Your task to perform on an android device: Open Chrome and go to the settings page Image 0: 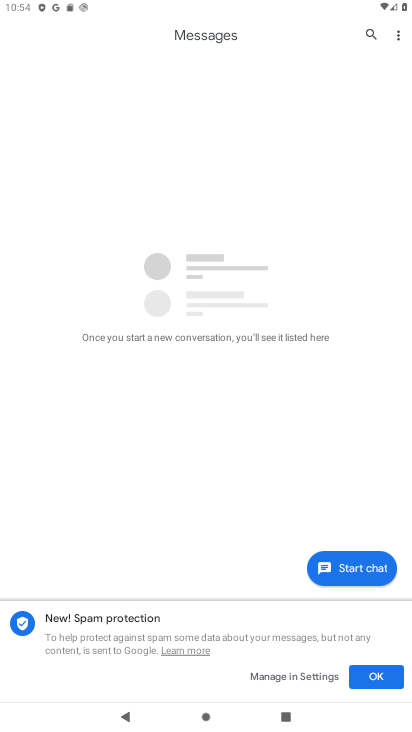
Step 0: press home button
Your task to perform on an android device: Open Chrome and go to the settings page Image 1: 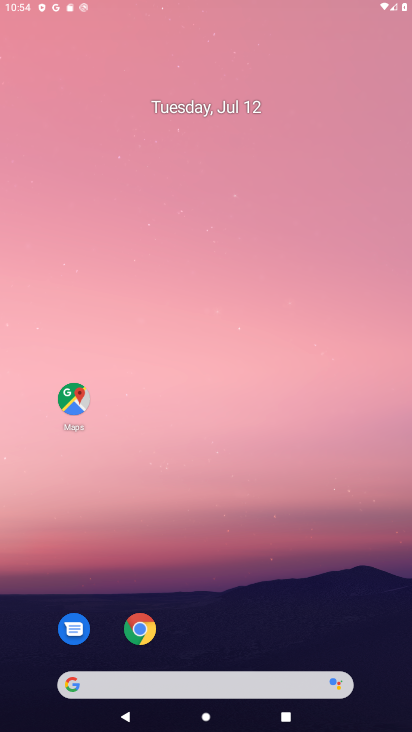
Step 1: drag from (197, 638) to (216, 143)
Your task to perform on an android device: Open Chrome and go to the settings page Image 2: 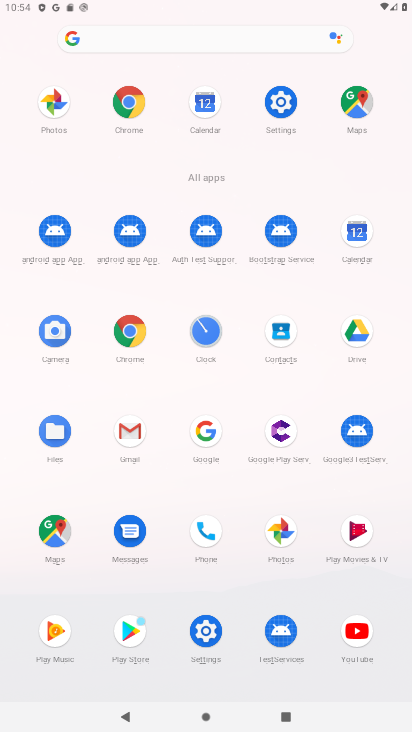
Step 2: click (277, 96)
Your task to perform on an android device: Open Chrome and go to the settings page Image 3: 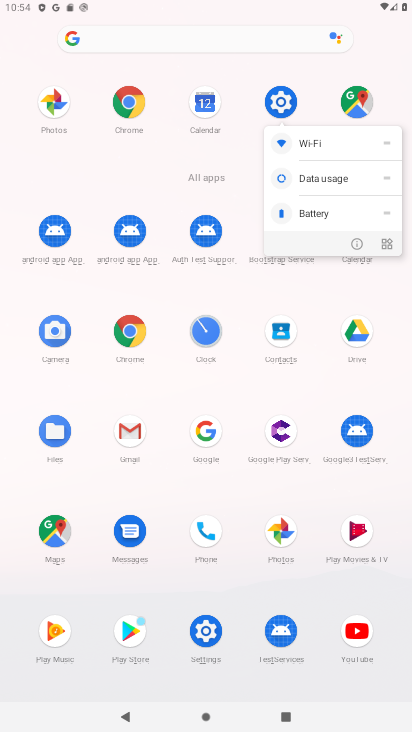
Step 3: click (130, 98)
Your task to perform on an android device: Open Chrome and go to the settings page Image 4: 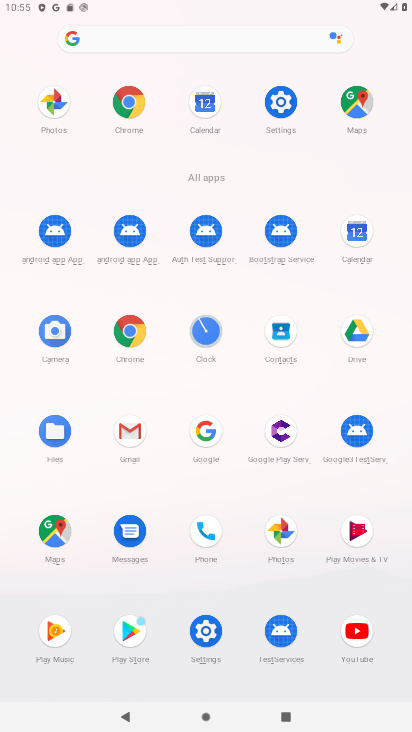
Step 4: click (136, 97)
Your task to perform on an android device: Open Chrome and go to the settings page Image 5: 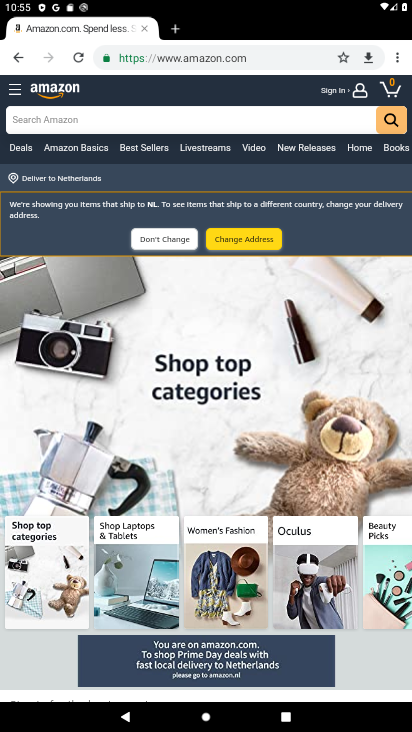
Step 5: click (395, 58)
Your task to perform on an android device: Open Chrome and go to the settings page Image 6: 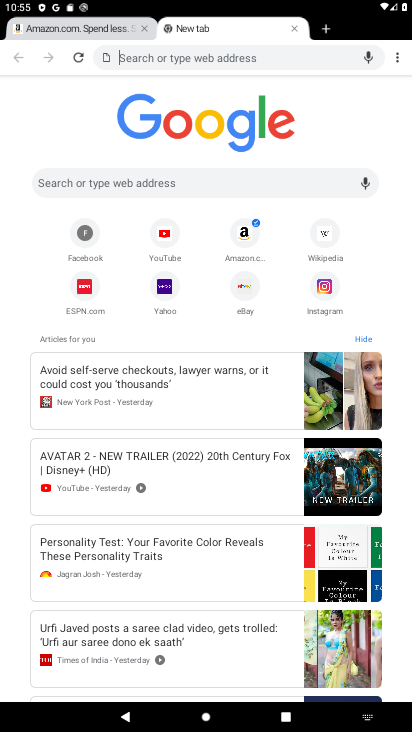
Step 6: click (394, 55)
Your task to perform on an android device: Open Chrome and go to the settings page Image 7: 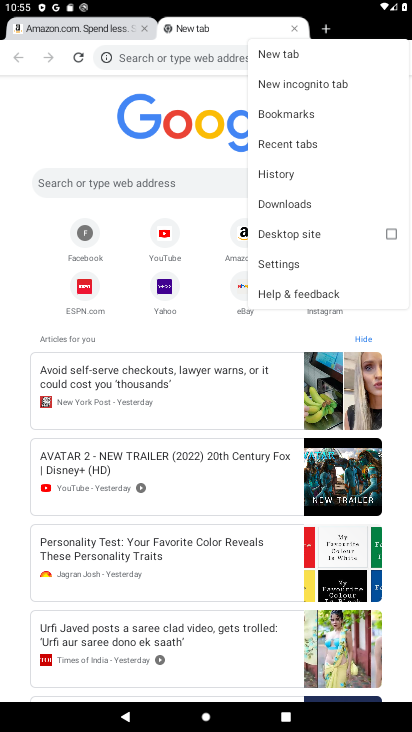
Step 7: click (295, 265)
Your task to perform on an android device: Open Chrome and go to the settings page Image 8: 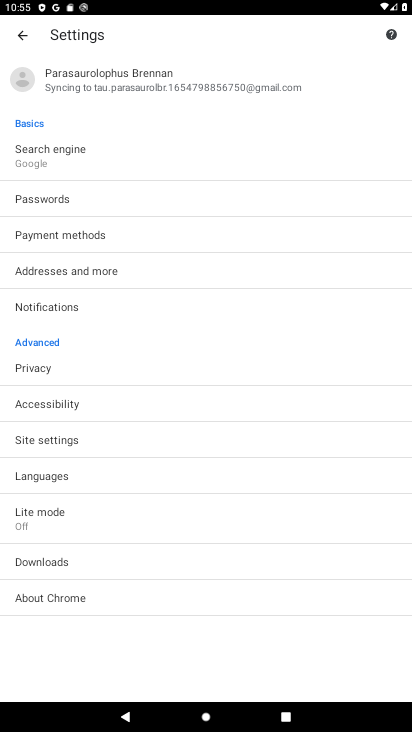
Step 8: task complete